Your task to perform on an android device: turn on sleep mode Image 0: 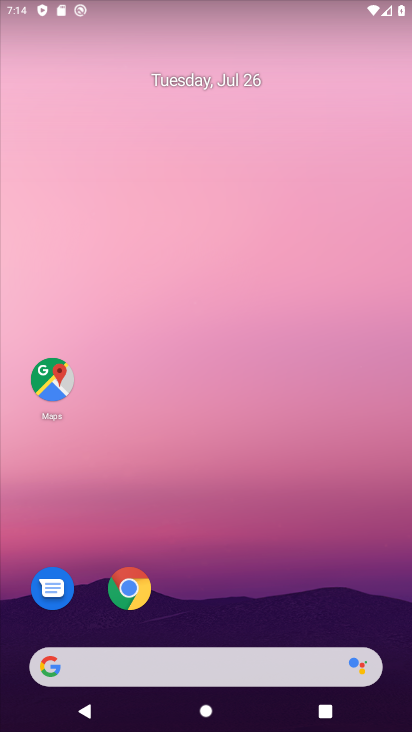
Step 0: drag from (273, 551) to (307, 300)
Your task to perform on an android device: turn on sleep mode Image 1: 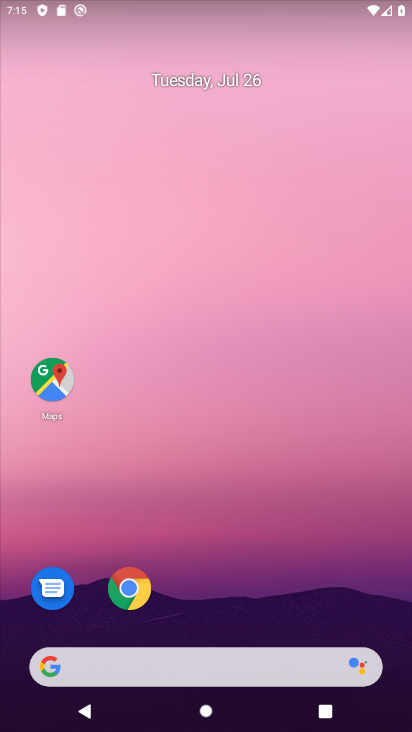
Step 1: drag from (285, 505) to (250, 49)
Your task to perform on an android device: turn on sleep mode Image 2: 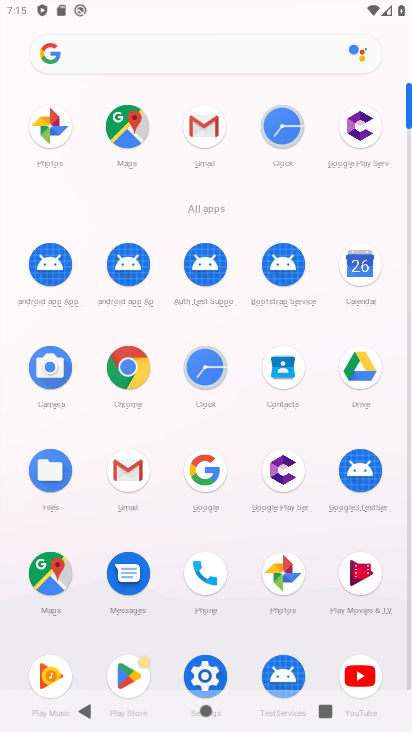
Step 2: click (208, 678)
Your task to perform on an android device: turn on sleep mode Image 3: 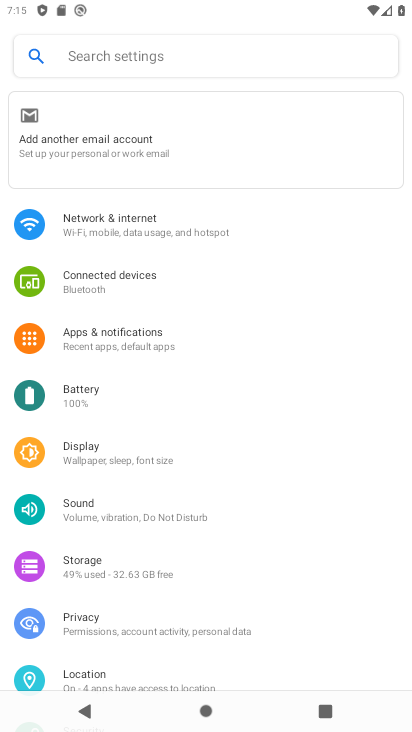
Step 3: task complete